Your task to perform on an android device: install app "Spotify: Music and Podcasts" Image 0: 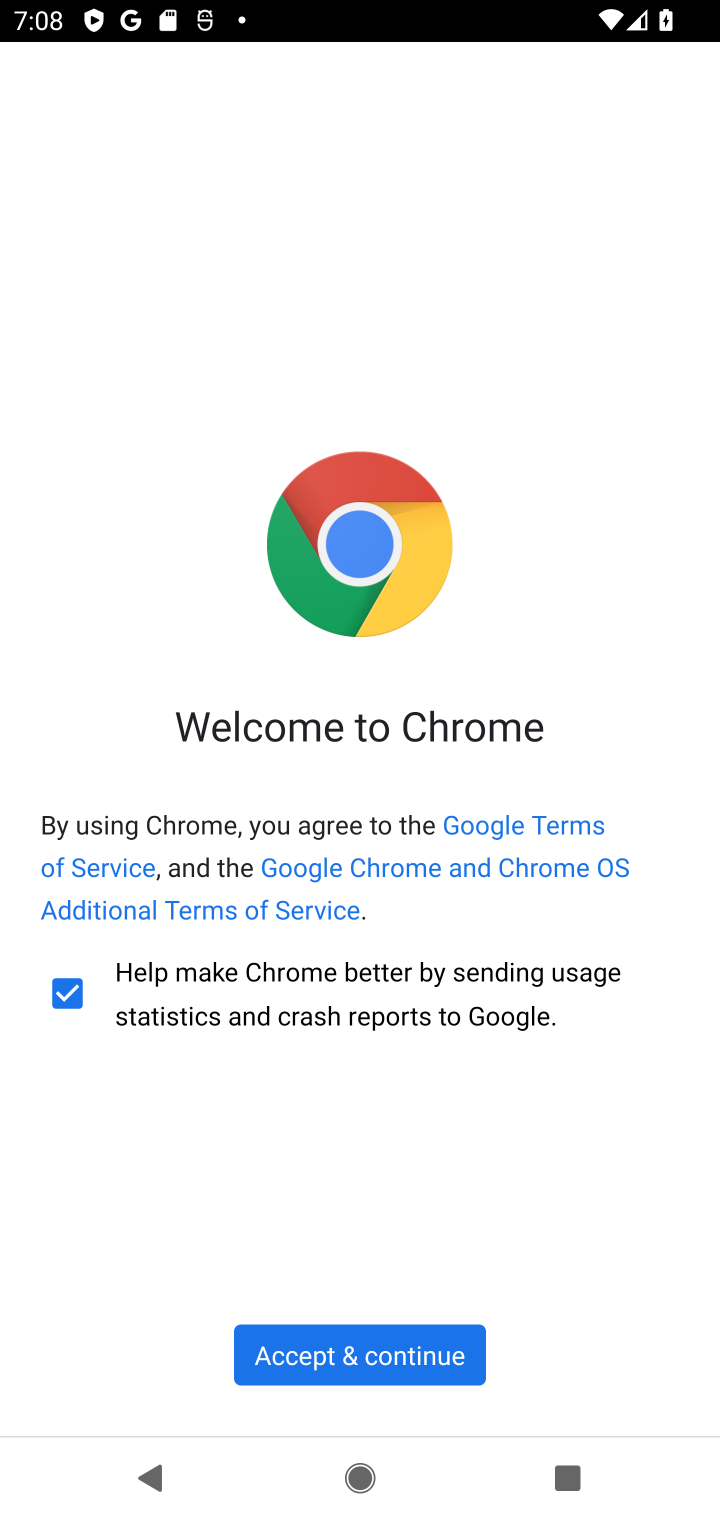
Step 0: press home button
Your task to perform on an android device: install app "Spotify: Music and Podcasts" Image 1: 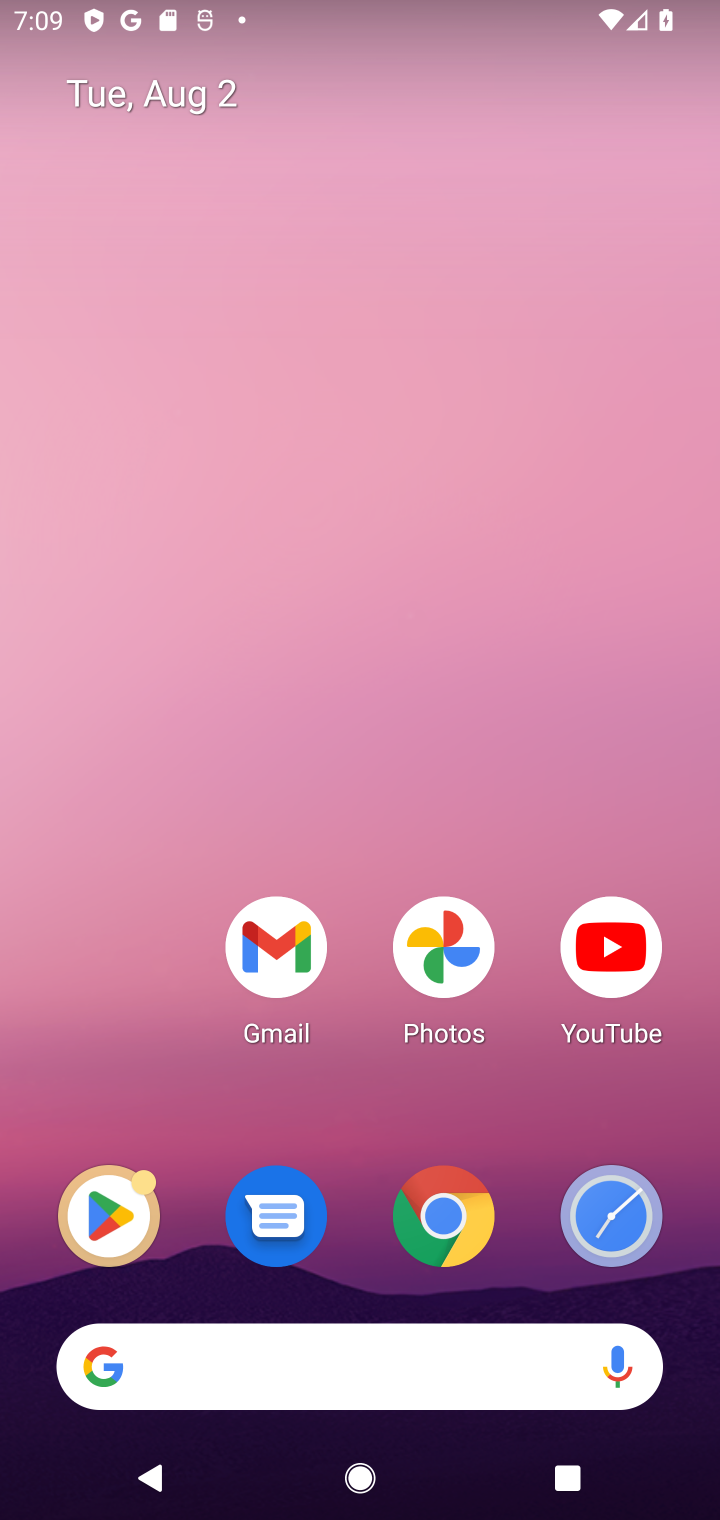
Step 1: drag from (295, 1265) to (319, 28)
Your task to perform on an android device: install app "Spotify: Music and Podcasts" Image 2: 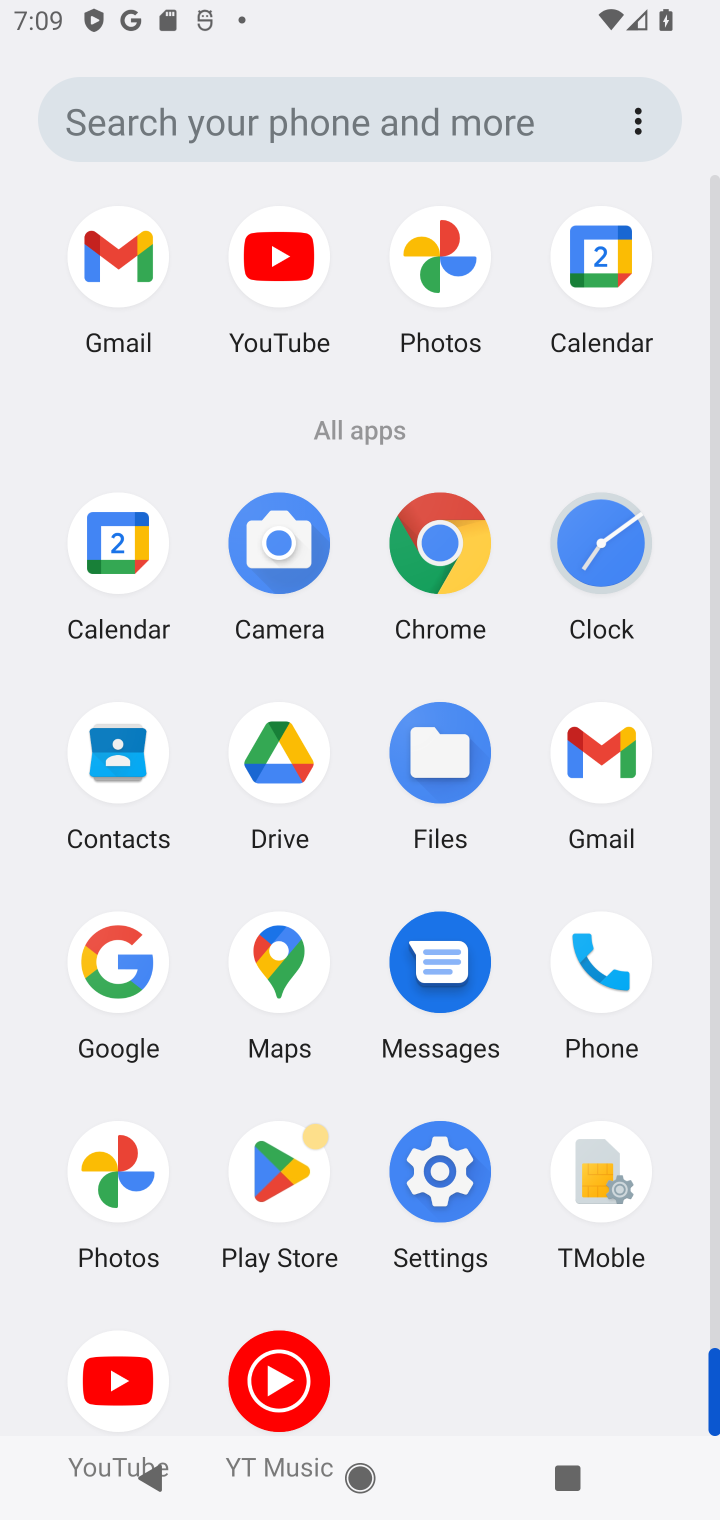
Step 2: click (285, 1186)
Your task to perform on an android device: install app "Spotify: Music and Podcasts" Image 3: 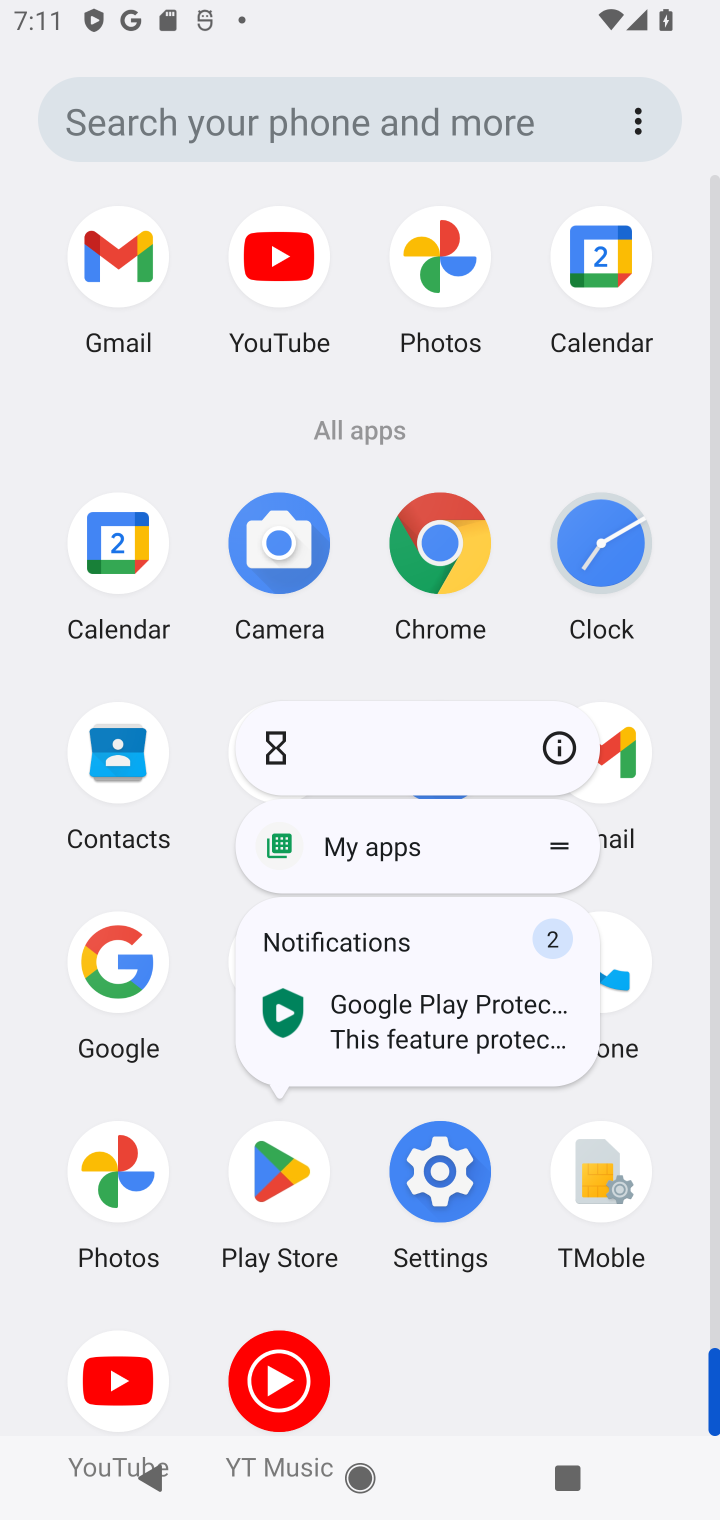
Step 3: click (276, 1193)
Your task to perform on an android device: install app "Spotify: Music and Podcasts" Image 4: 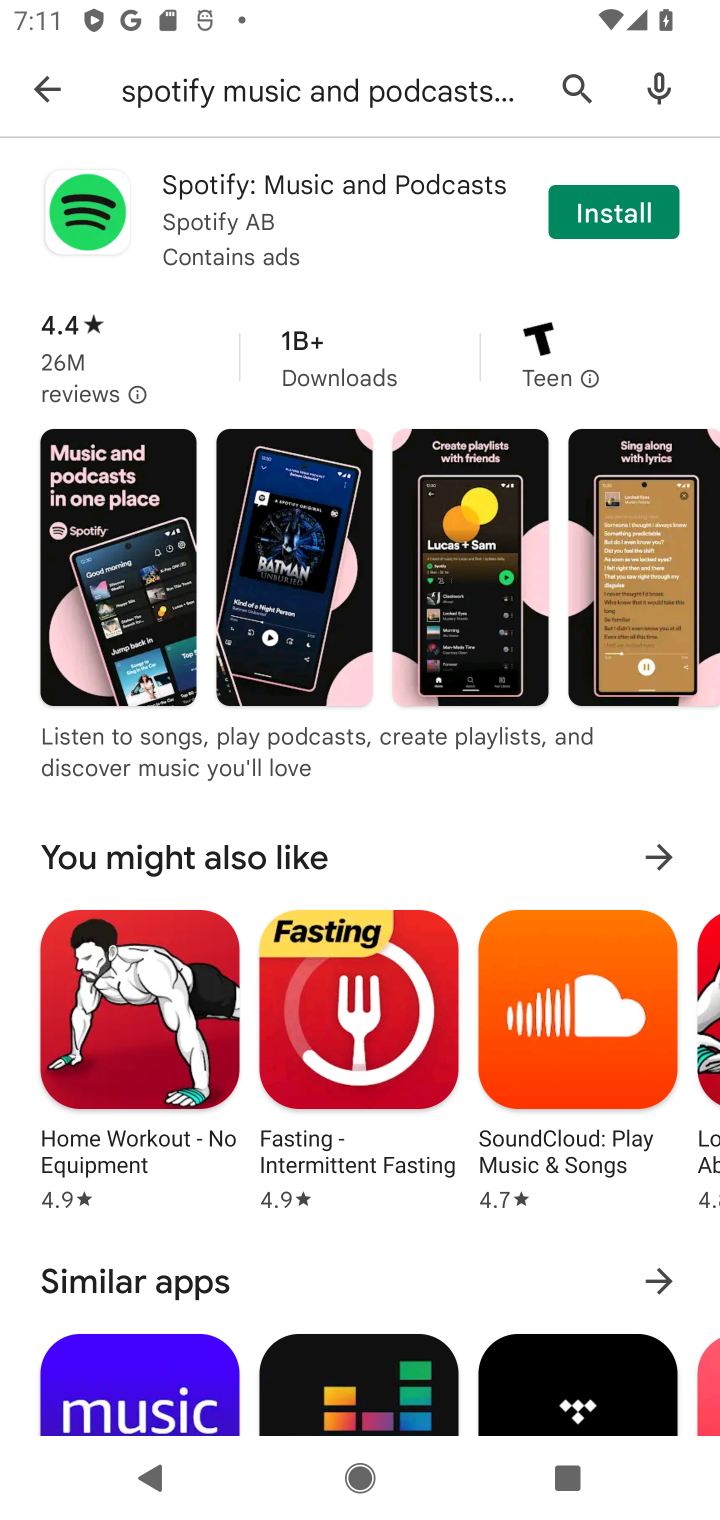
Step 4: click (646, 216)
Your task to perform on an android device: install app "Spotify: Music and Podcasts" Image 5: 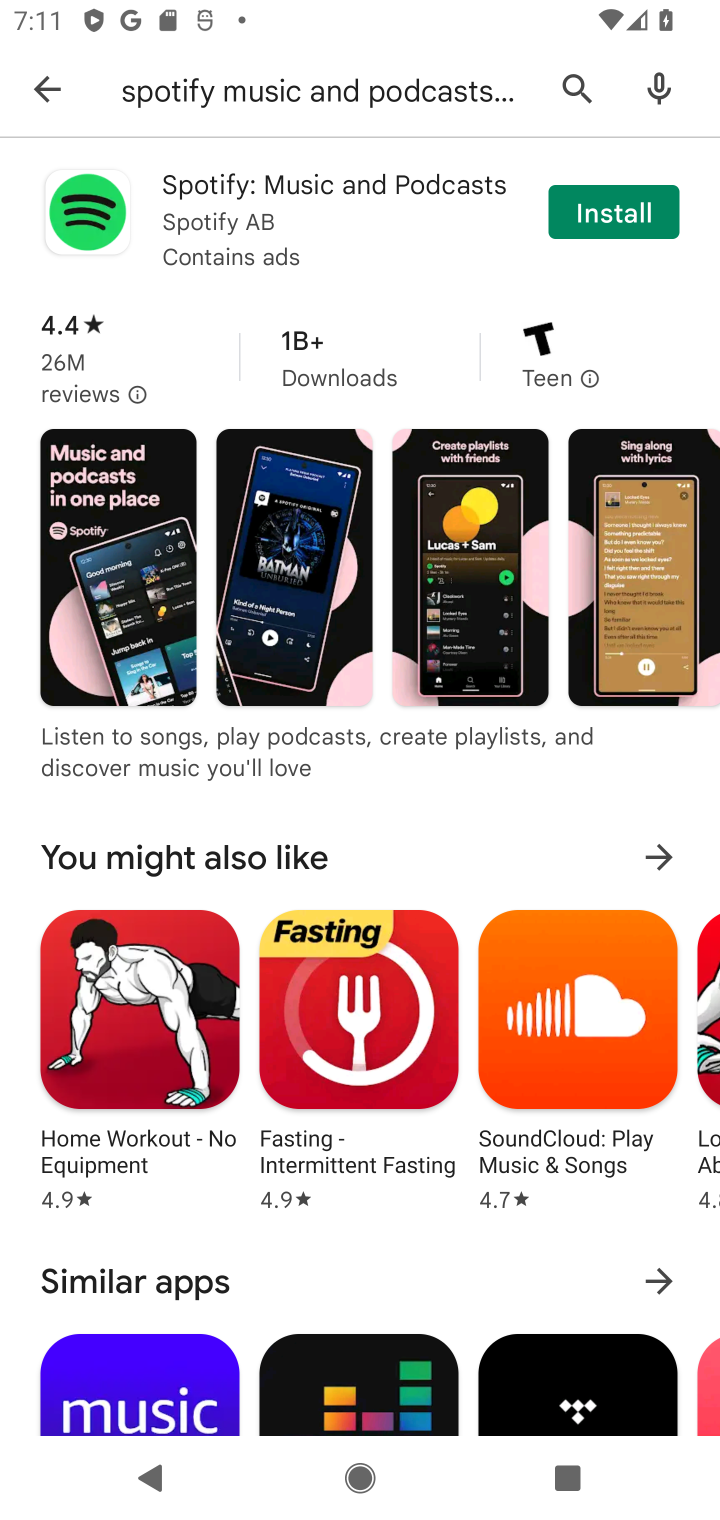
Step 5: click (585, 208)
Your task to perform on an android device: install app "Spotify: Music and Podcasts" Image 6: 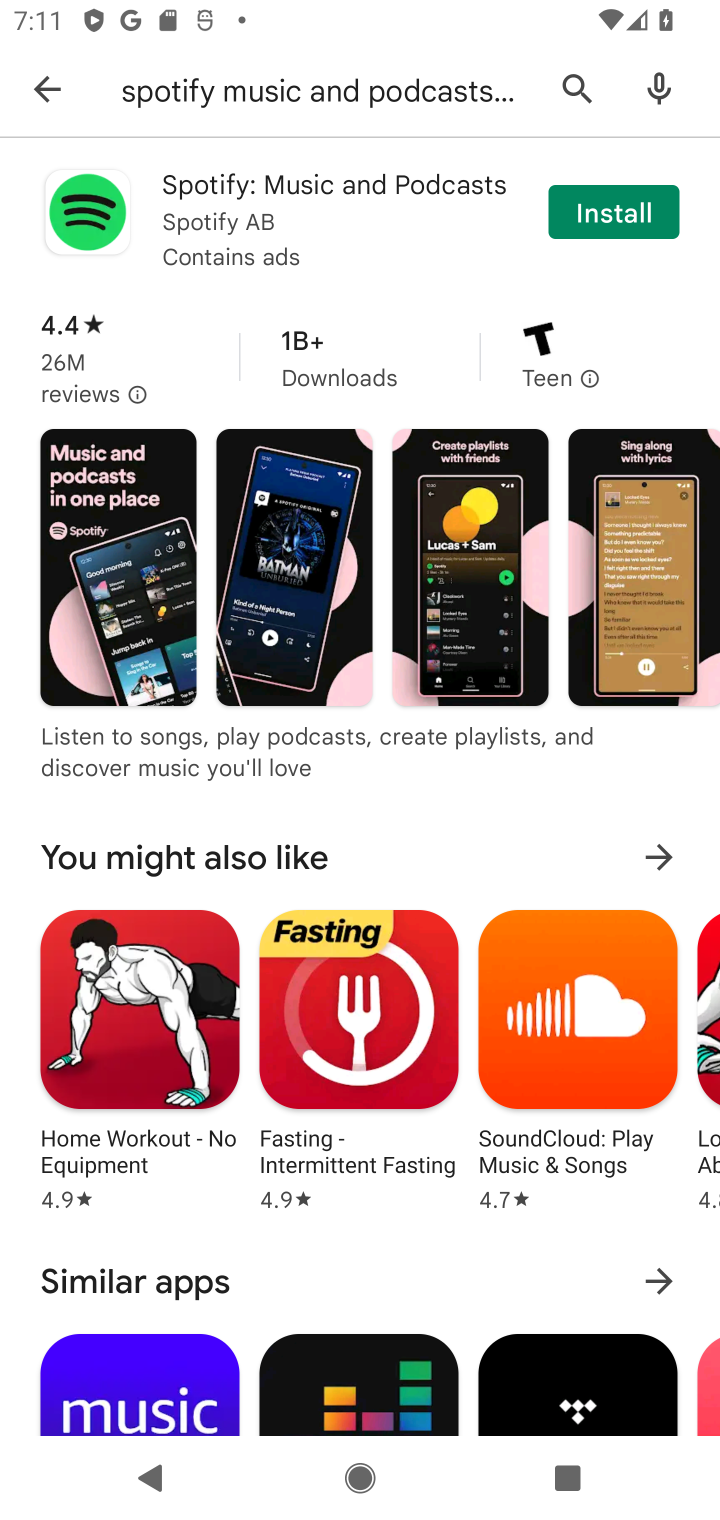
Step 6: task complete